Your task to perform on an android device: open wifi settings Image 0: 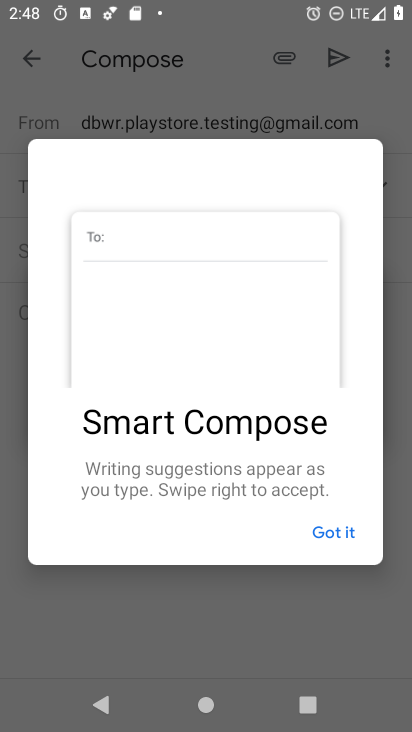
Step 0: press home button
Your task to perform on an android device: open wifi settings Image 1: 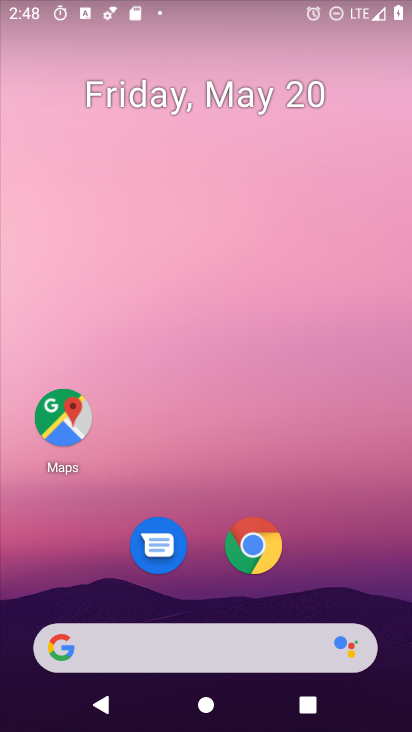
Step 1: drag from (307, 598) to (290, 16)
Your task to perform on an android device: open wifi settings Image 2: 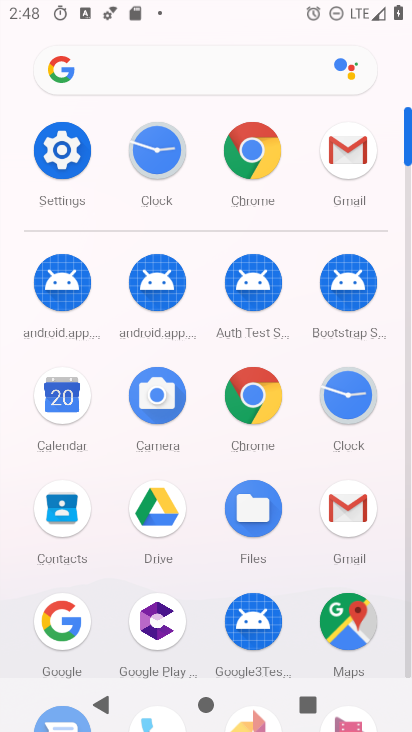
Step 2: click (78, 155)
Your task to perform on an android device: open wifi settings Image 3: 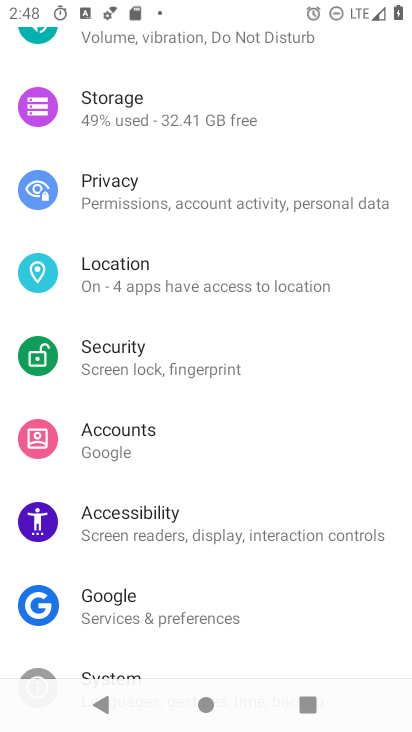
Step 3: drag from (140, 174) to (165, 700)
Your task to perform on an android device: open wifi settings Image 4: 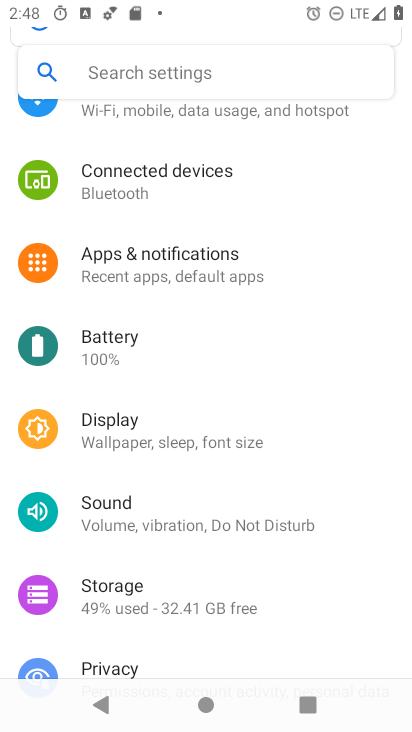
Step 4: drag from (184, 270) to (158, 697)
Your task to perform on an android device: open wifi settings Image 5: 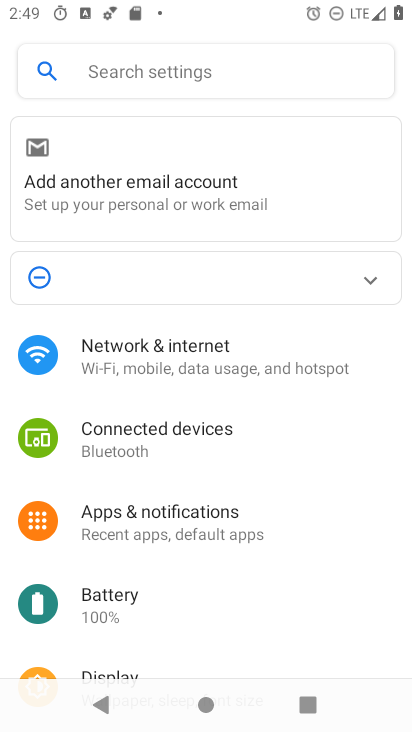
Step 5: click (203, 374)
Your task to perform on an android device: open wifi settings Image 6: 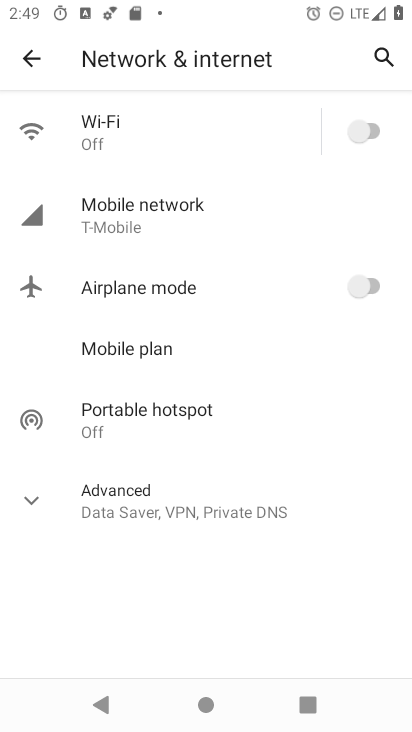
Step 6: click (136, 137)
Your task to perform on an android device: open wifi settings Image 7: 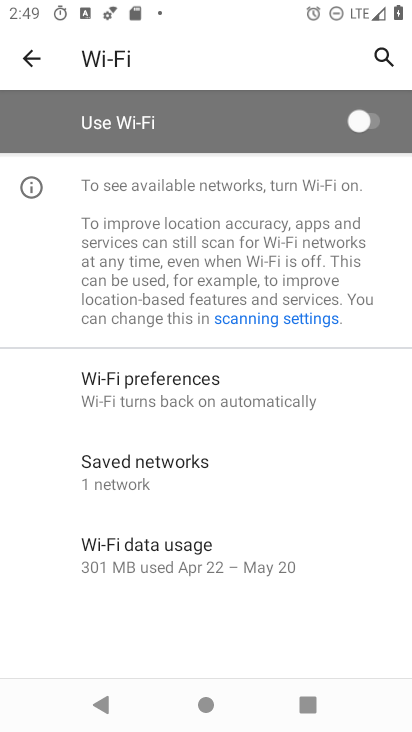
Step 7: task complete